Your task to perform on an android device: What's the news in Sri Lanka? Image 0: 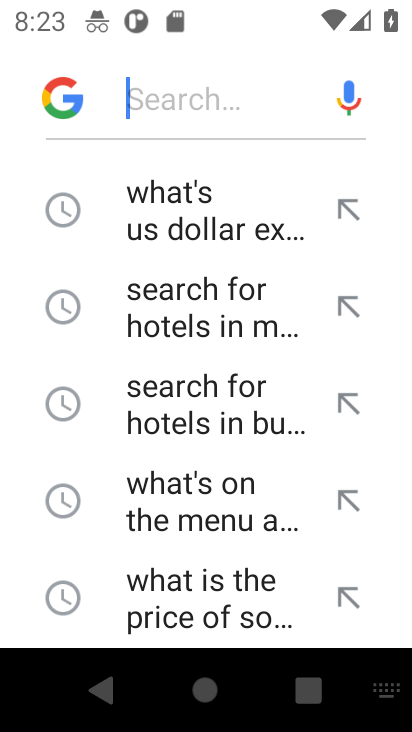
Step 0: type "news in srilanka"
Your task to perform on an android device: What's the news in Sri Lanka? Image 1: 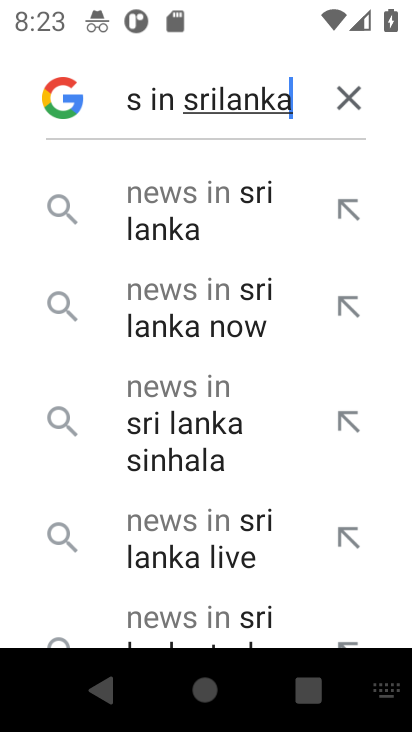
Step 1: click (143, 200)
Your task to perform on an android device: What's the news in Sri Lanka? Image 2: 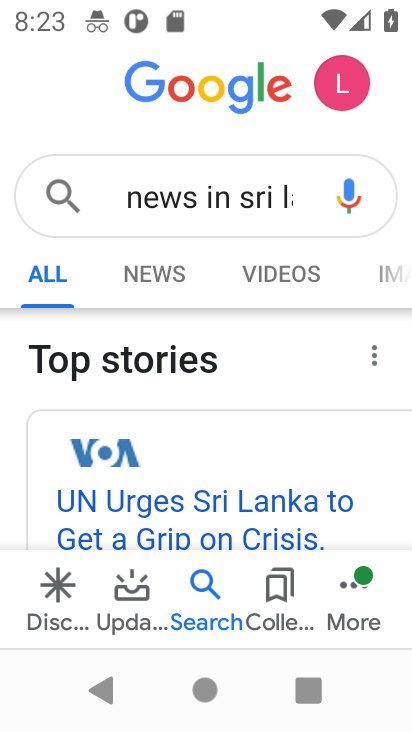
Step 2: task complete